Your task to perform on an android device: turn off wifi Image 0: 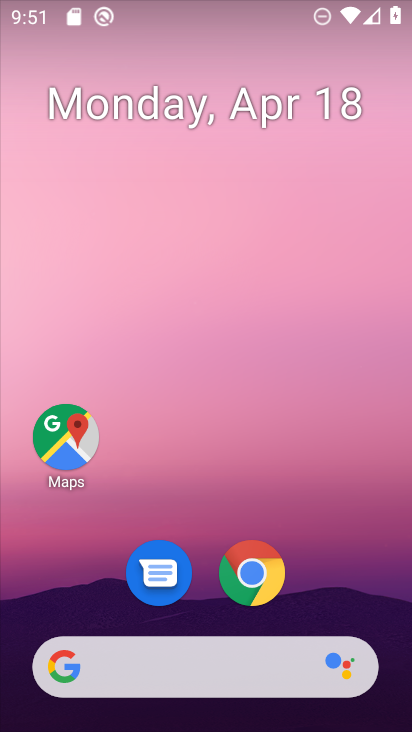
Step 0: drag from (172, 0) to (231, 434)
Your task to perform on an android device: turn off wifi Image 1: 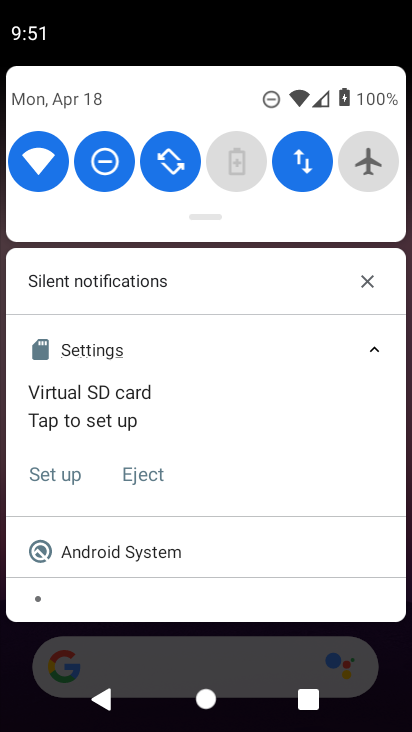
Step 1: click (34, 174)
Your task to perform on an android device: turn off wifi Image 2: 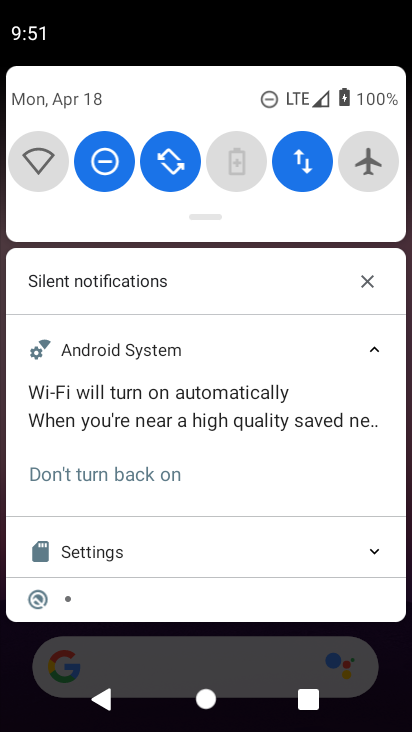
Step 2: task complete